Your task to perform on an android device: find which apps use the phone's location Image 0: 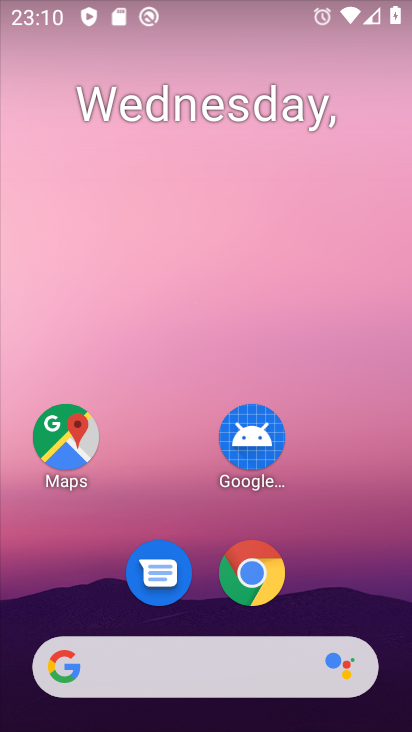
Step 0: drag from (163, 487) to (237, 0)
Your task to perform on an android device: find which apps use the phone's location Image 1: 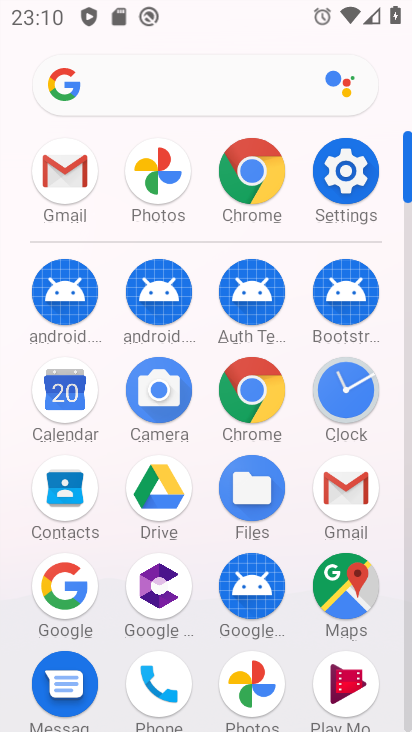
Step 1: click (345, 170)
Your task to perform on an android device: find which apps use the phone's location Image 2: 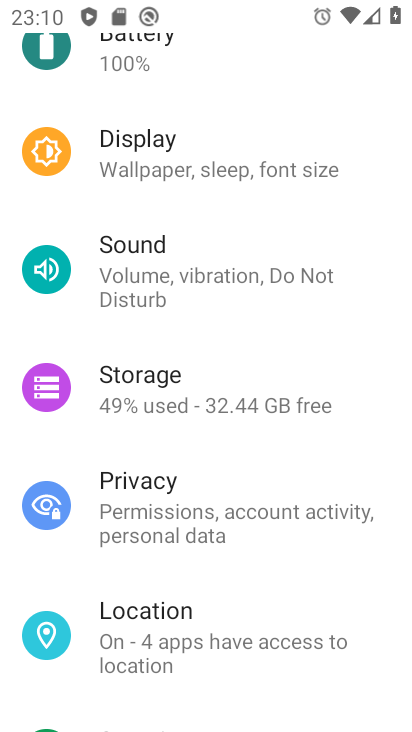
Step 2: click (172, 610)
Your task to perform on an android device: find which apps use the phone's location Image 3: 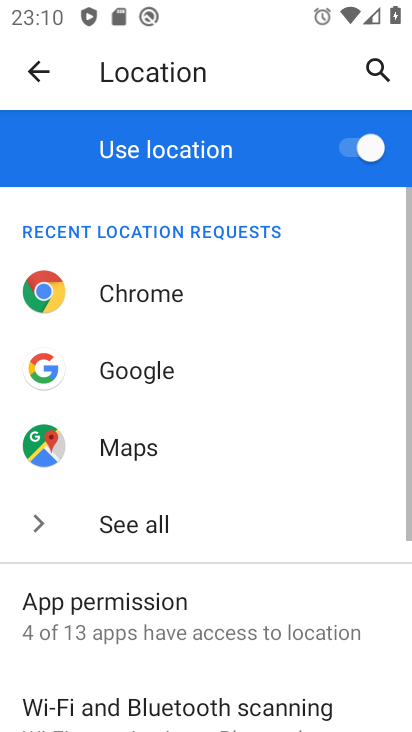
Step 3: drag from (252, 497) to (288, 317)
Your task to perform on an android device: find which apps use the phone's location Image 4: 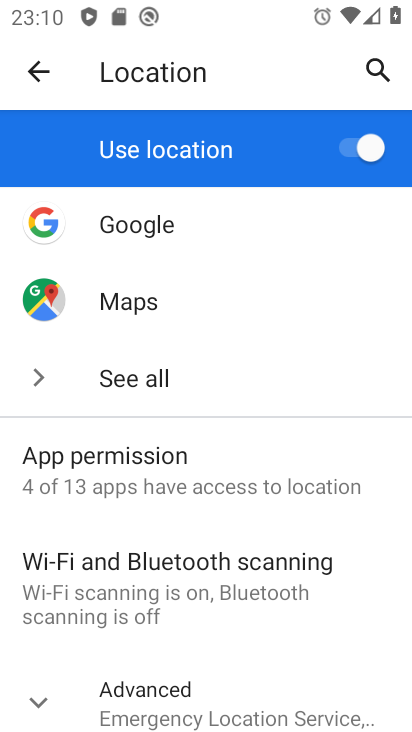
Step 4: drag from (228, 524) to (306, 377)
Your task to perform on an android device: find which apps use the phone's location Image 5: 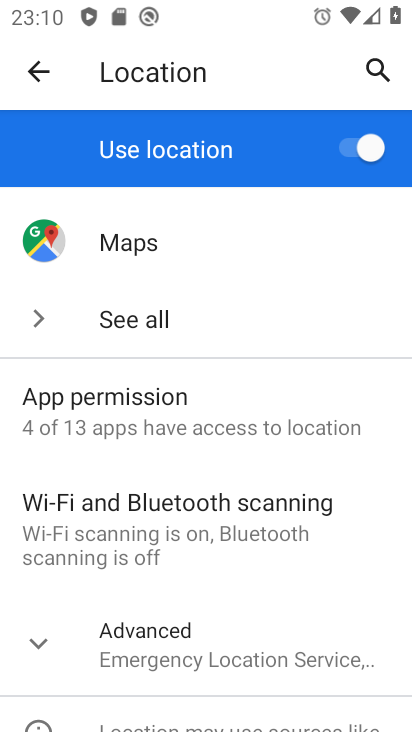
Step 5: click (213, 655)
Your task to perform on an android device: find which apps use the phone's location Image 6: 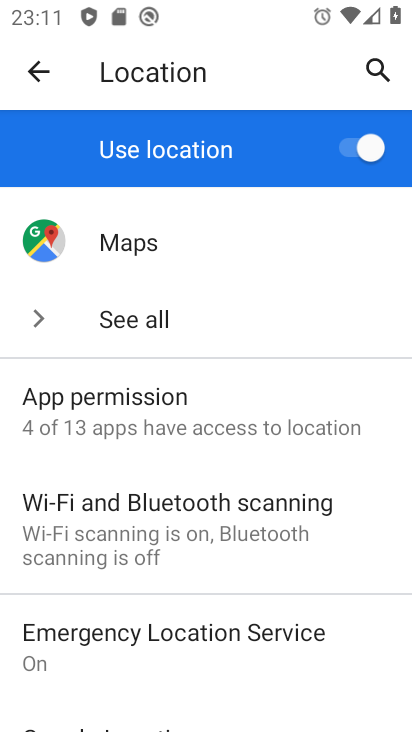
Step 6: click (219, 411)
Your task to perform on an android device: find which apps use the phone's location Image 7: 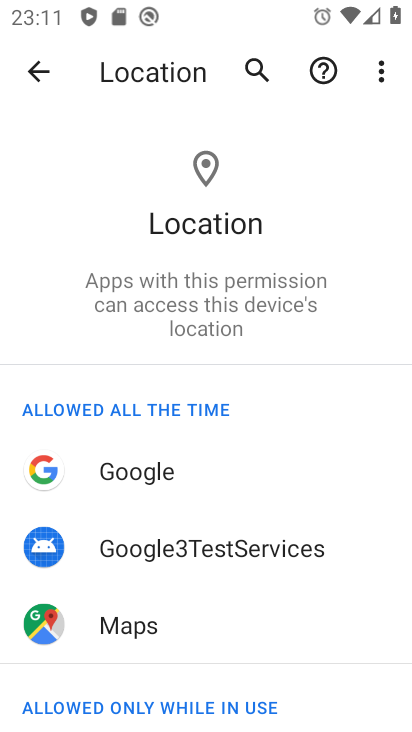
Step 7: click (123, 620)
Your task to perform on an android device: find which apps use the phone's location Image 8: 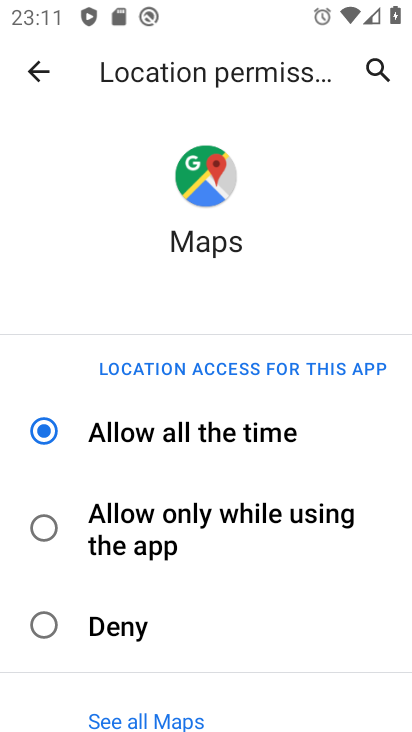
Step 8: task complete